Your task to perform on an android device: Open eBay Image 0: 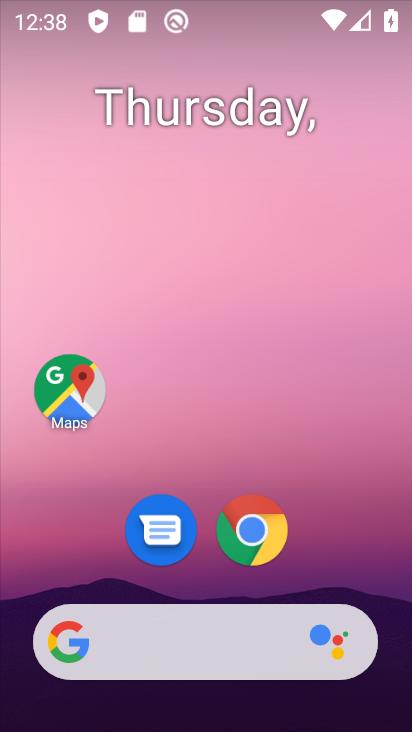
Step 0: click (263, 552)
Your task to perform on an android device: Open eBay Image 1: 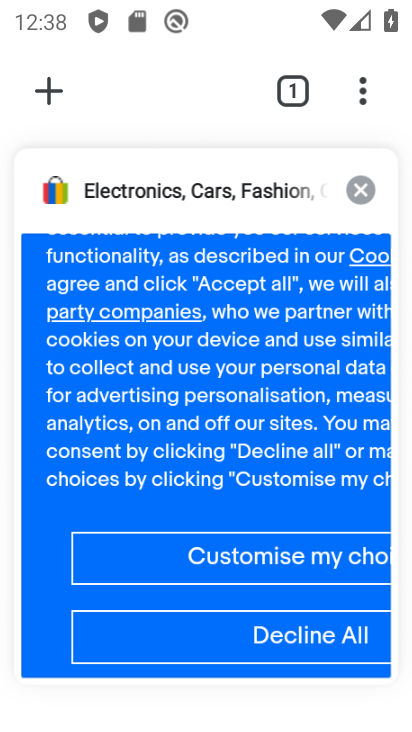
Step 1: click (189, 369)
Your task to perform on an android device: Open eBay Image 2: 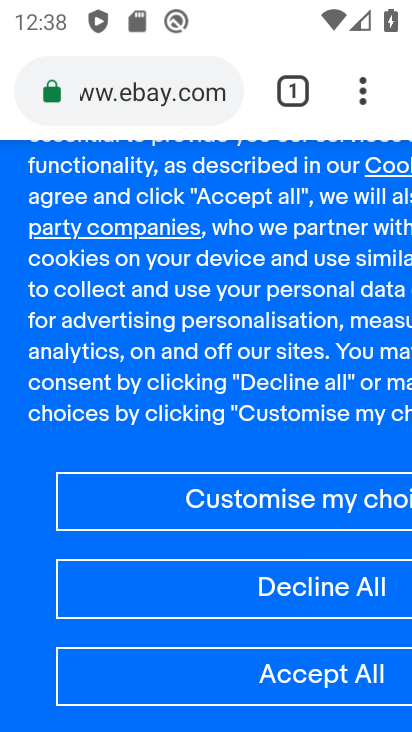
Step 2: task complete